Your task to perform on an android device: turn off location history Image 0: 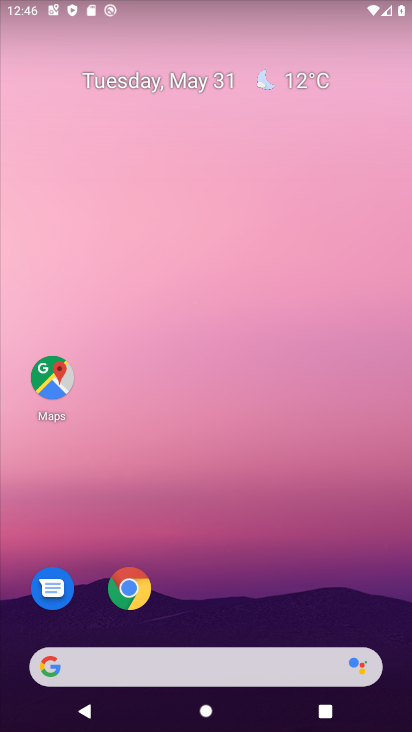
Step 0: drag from (200, 605) to (261, 104)
Your task to perform on an android device: turn off location history Image 1: 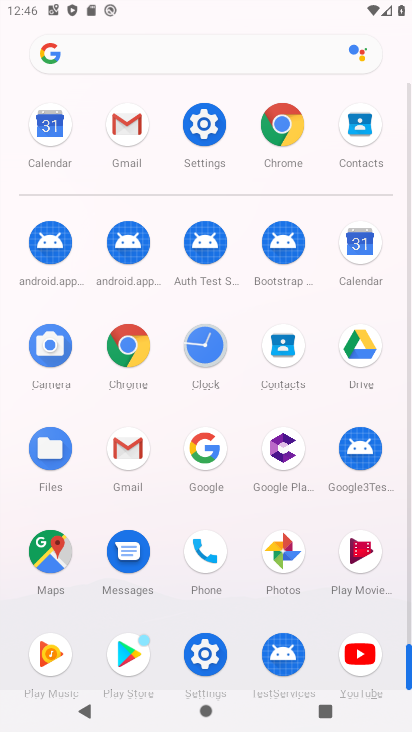
Step 1: click (211, 652)
Your task to perform on an android device: turn off location history Image 2: 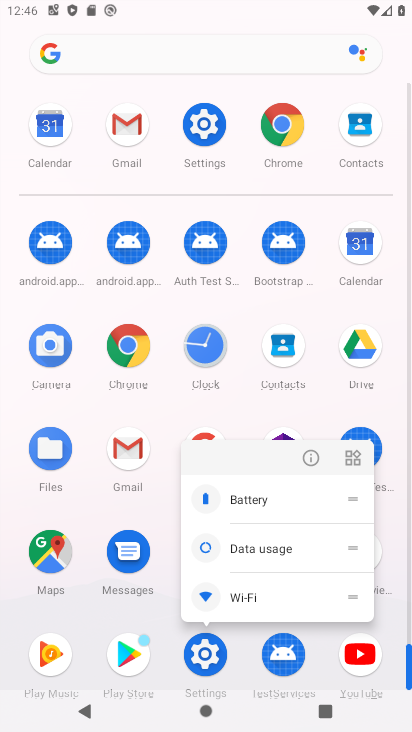
Step 2: click (206, 665)
Your task to perform on an android device: turn off location history Image 3: 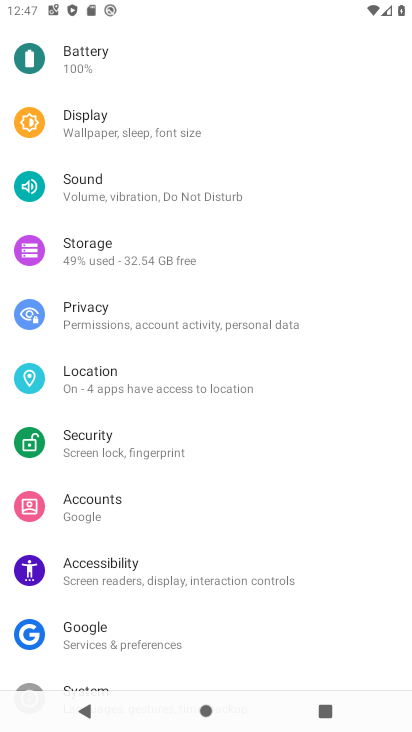
Step 3: drag from (137, 655) to (196, 257)
Your task to perform on an android device: turn off location history Image 4: 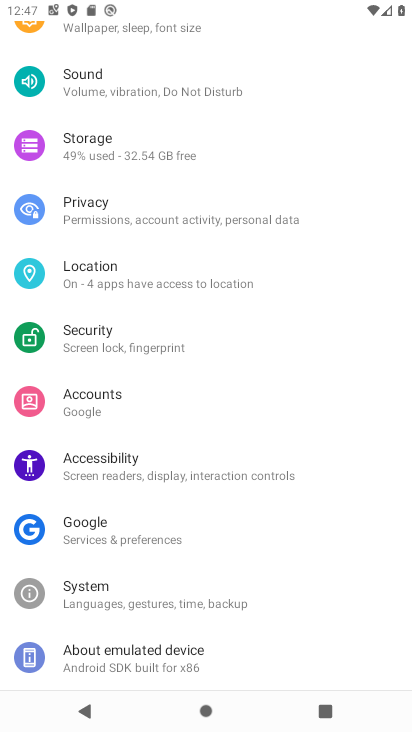
Step 4: click (165, 285)
Your task to perform on an android device: turn off location history Image 5: 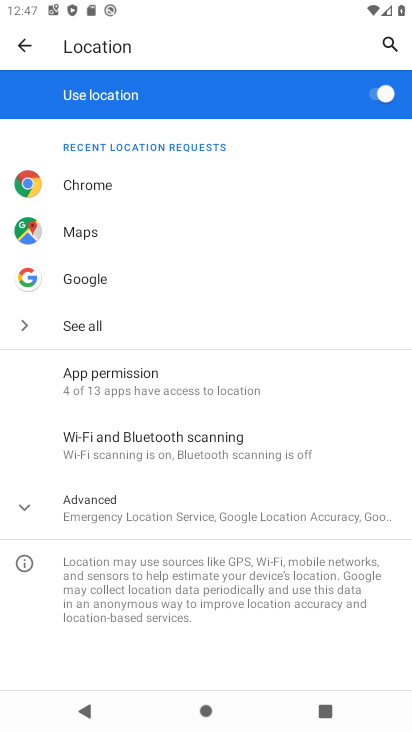
Step 5: click (79, 501)
Your task to perform on an android device: turn off location history Image 6: 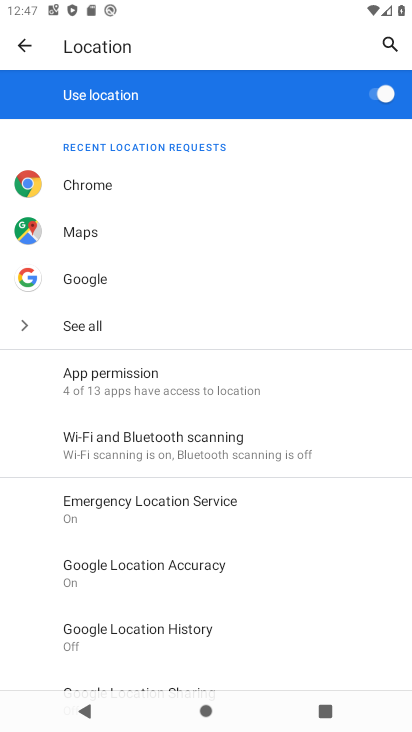
Step 6: click (147, 643)
Your task to perform on an android device: turn off location history Image 7: 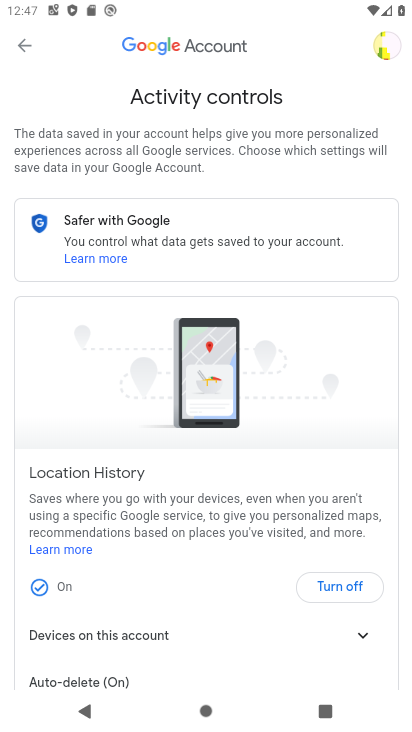
Step 7: drag from (244, 605) to (306, 400)
Your task to perform on an android device: turn off location history Image 8: 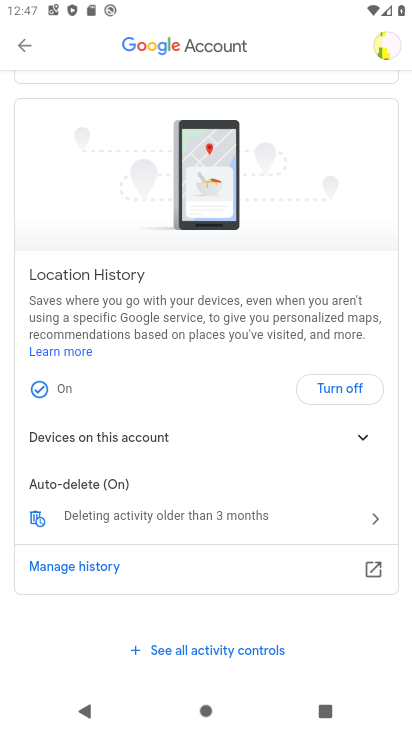
Step 8: click (333, 395)
Your task to perform on an android device: turn off location history Image 9: 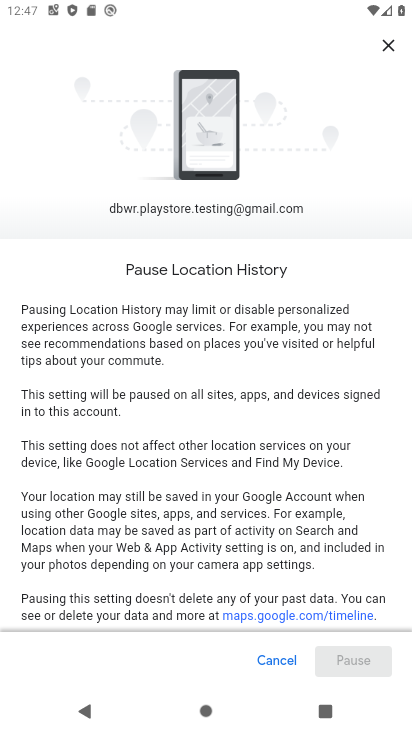
Step 9: drag from (208, 512) to (289, 152)
Your task to perform on an android device: turn off location history Image 10: 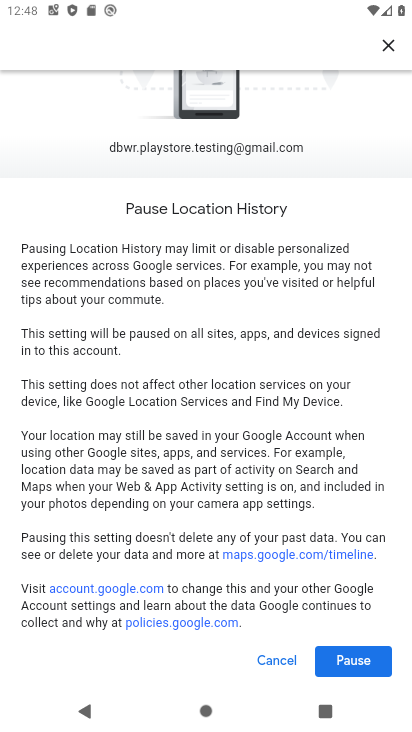
Step 10: click (326, 670)
Your task to perform on an android device: turn off location history Image 11: 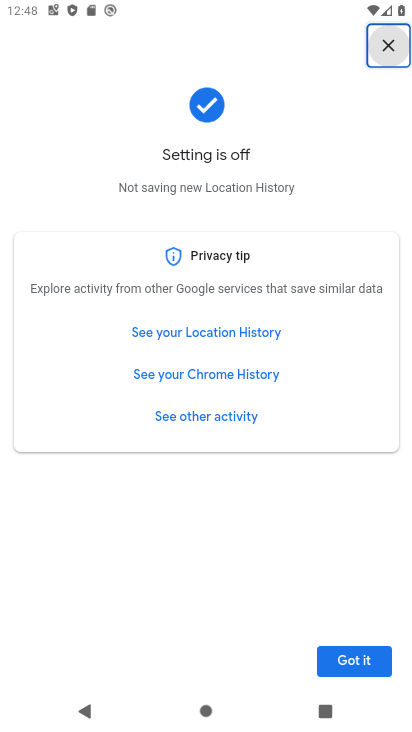
Step 11: click (350, 668)
Your task to perform on an android device: turn off location history Image 12: 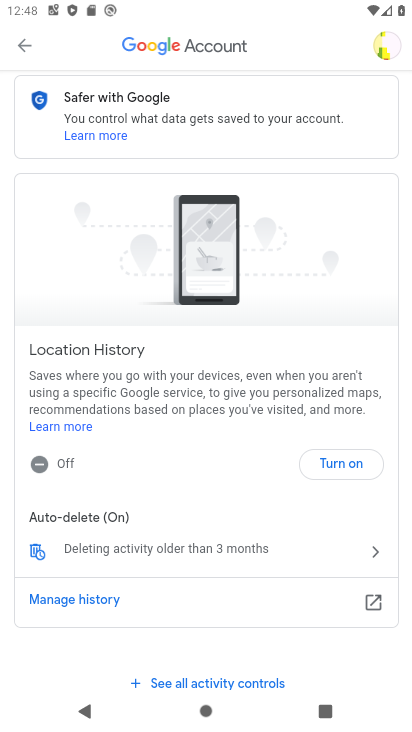
Step 12: task complete